Your task to perform on an android device: Open calendar and show me the third week of next month Image 0: 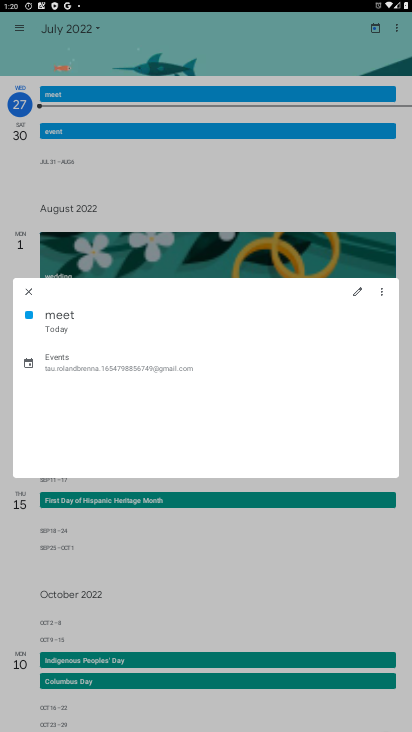
Step 0: press home button
Your task to perform on an android device: Open calendar and show me the third week of next month Image 1: 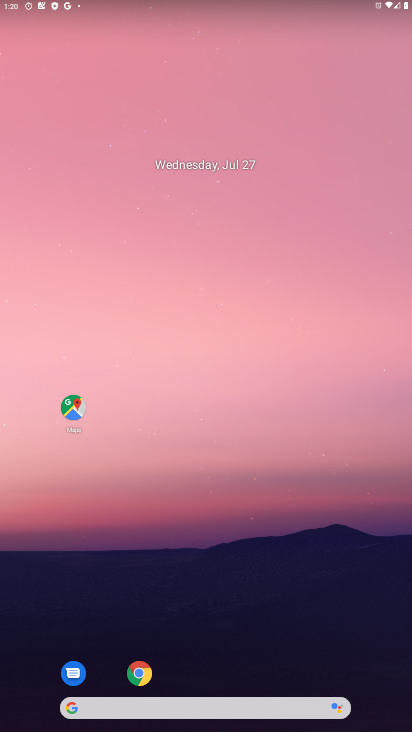
Step 1: drag from (237, 663) to (241, 88)
Your task to perform on an android device: Open calendar and show me the third week of next month Image 2: 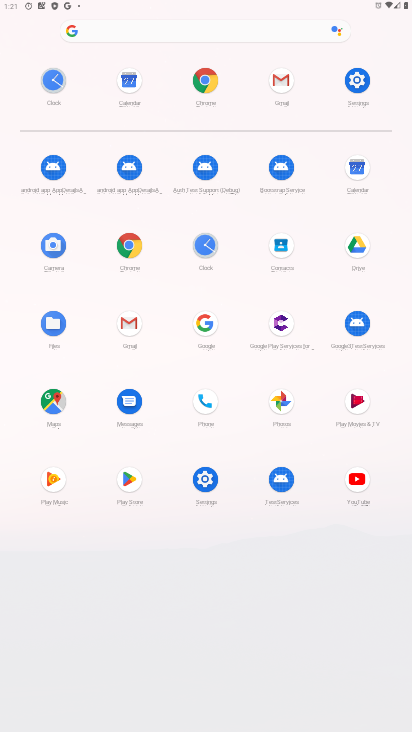
Step 2: click (364, 179)
Your task to perform on an android device: Open calendar and show me the third week of next month Image 3: 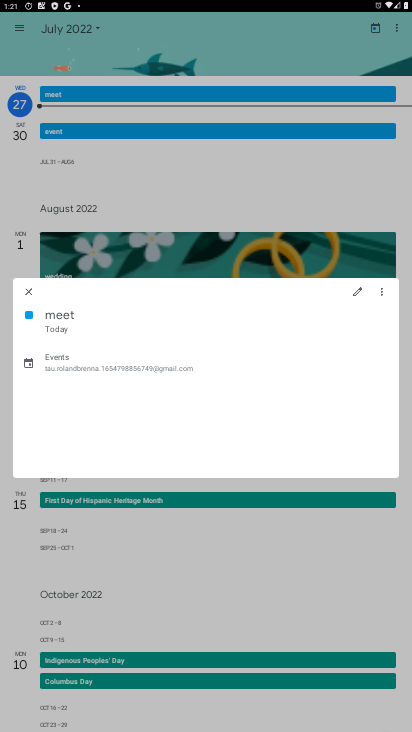
Step 3: click (31, 291)
Your task to perform on an android device: Open calendar and show me the third week of next month Image 4: 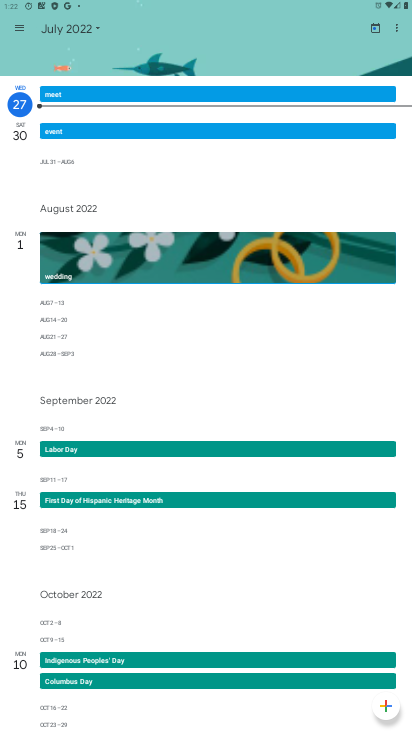
Step 4: click (24, 30)
Your task to perform on an android device: Open calendar and show me the third week of next month Image 5: 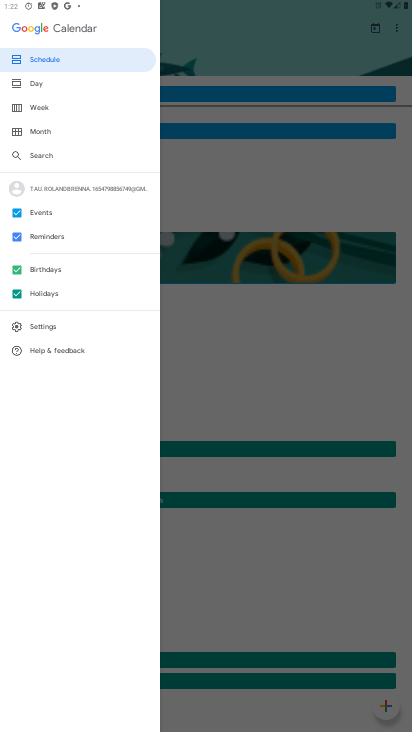
Step 5: click (31, 110)
Your task to perform on an android device: Open calendar and show me the third week of next month Image 6: 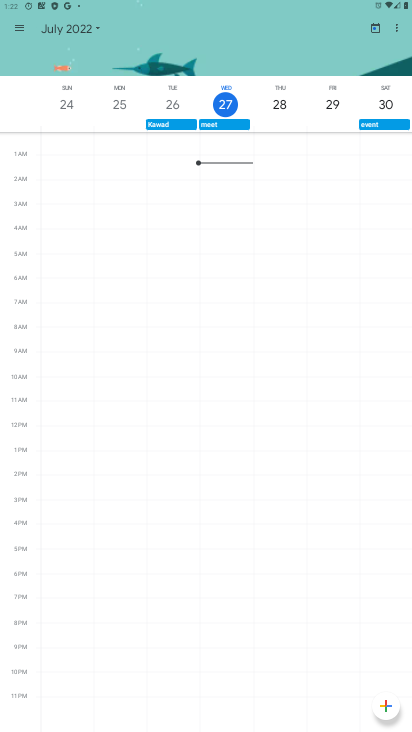
Step 6: click (100, 31)
Your task to perform on an android device: Open calendar and show me the third week of next month Image 7: 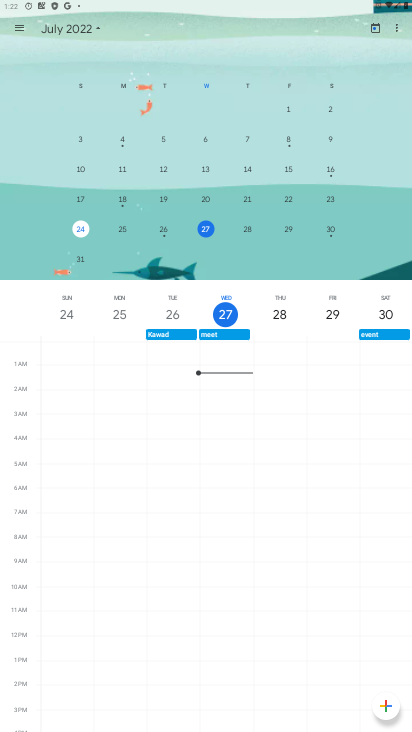
Step 7: drag from (331, 163) to (5, 234)
Your task to perform on an android device: Open calendar and show me the third week of next month Image 8: 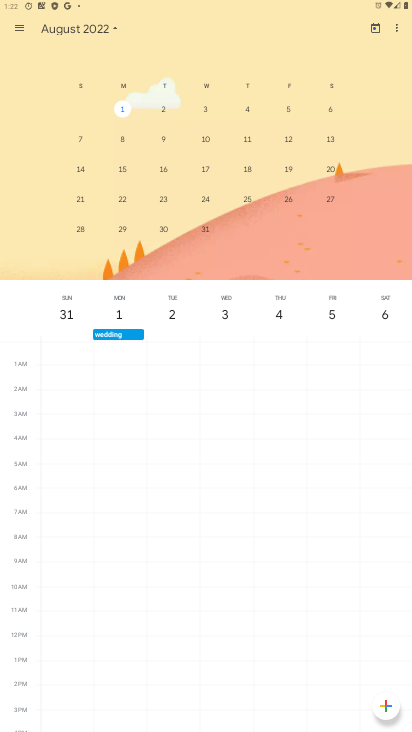
Step 8: click (20, 31)
Your task to perform on an android device: Open calendar and show me the third week of next month Image 9: 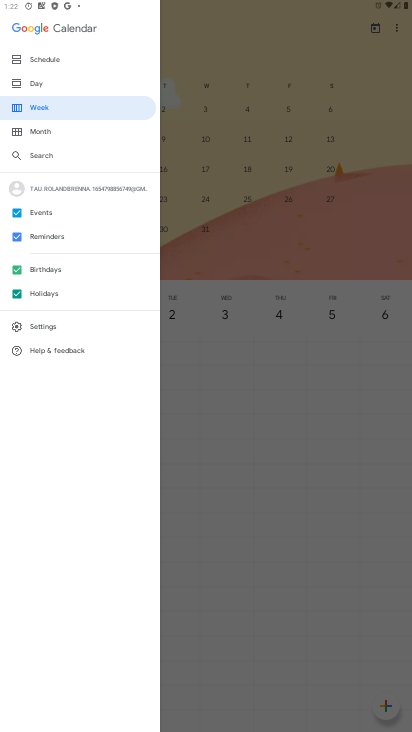
Step 9: click (40, 104)
Your task to perform on an android device: Open calendar and show me the third week of next month Image 10: 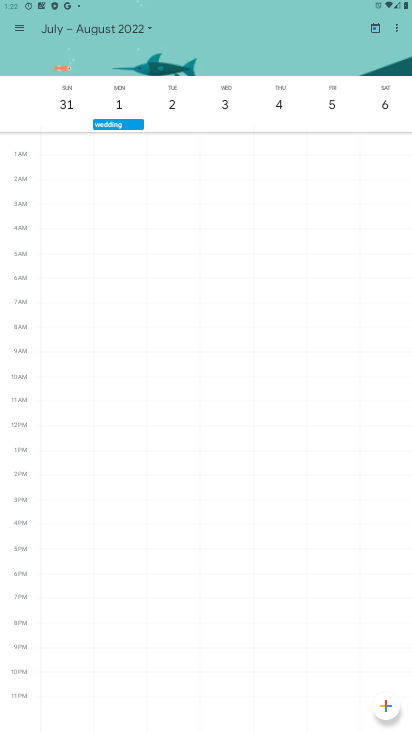
Step 10: task complete